Your task to perform on an android device: Is it going to rain this weekend? Image 0: 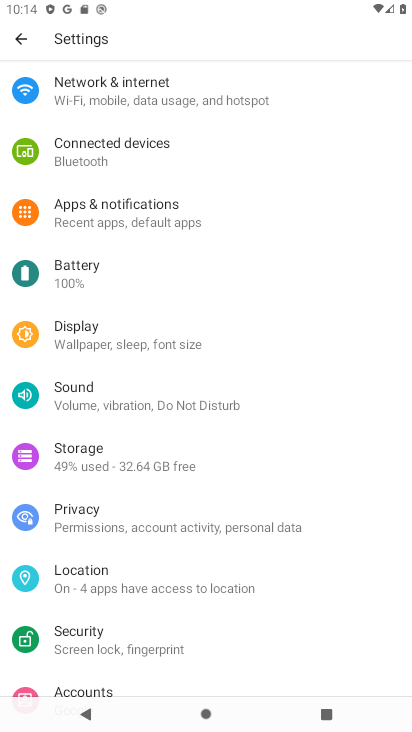
Step 0: press home button
Your task to perform on an android device: Is it going to rain this weekend? Image 1: 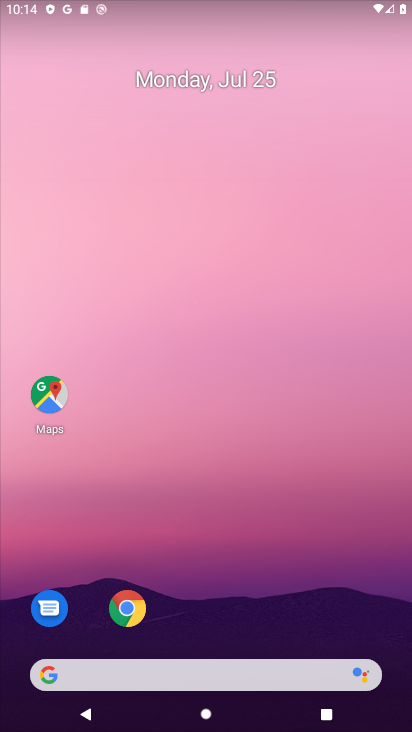
Step 1: drag from (171, 610) to (222, 169)
Your task to perform on an android device: Is it going to rain this weekend? Image 2: 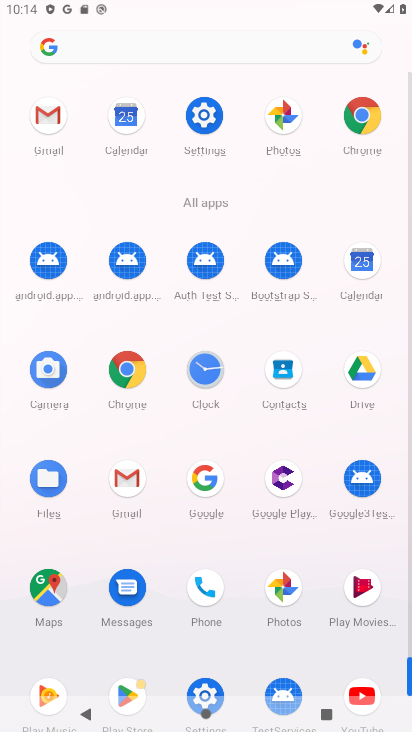
Step 2: click (137, 361)
Your task to perform on an android device: Is it going to rain this weekend? Image 3: 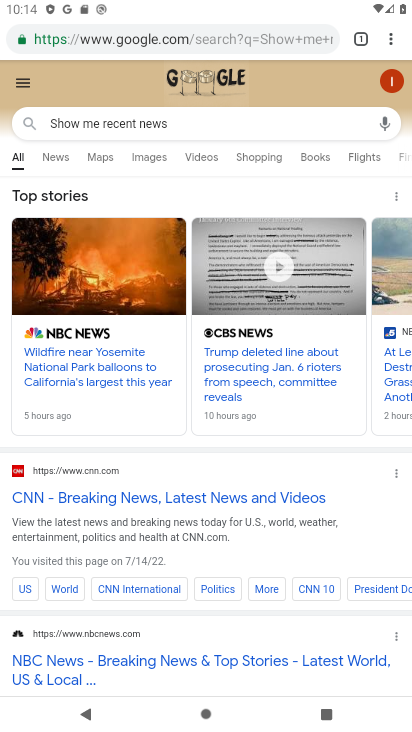
Step 3: click (393, 39)
Your task to perform on an android device: Is it going to rain this weekend? Image 4: 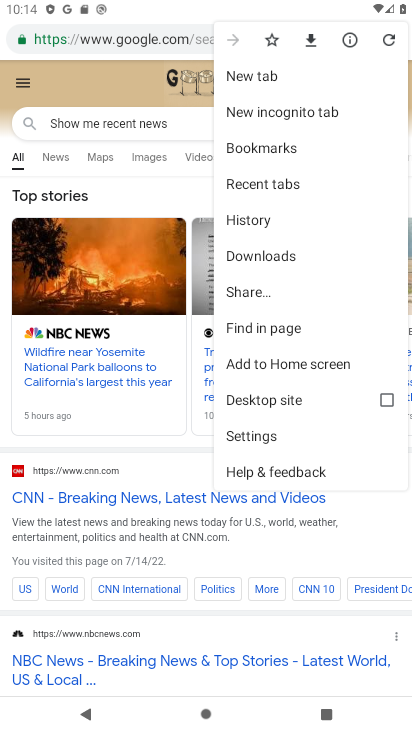
Step 4: click (244, 68)
Your task to perform on an android device: Is it going to rain this weekend? Image 5: 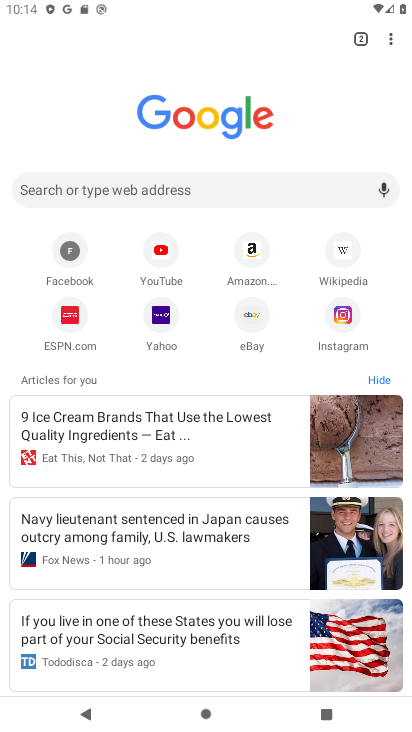
Step 5: click (280, 184)
Your task to perform on an android device: Is it going to rain this weekend? Image 6: 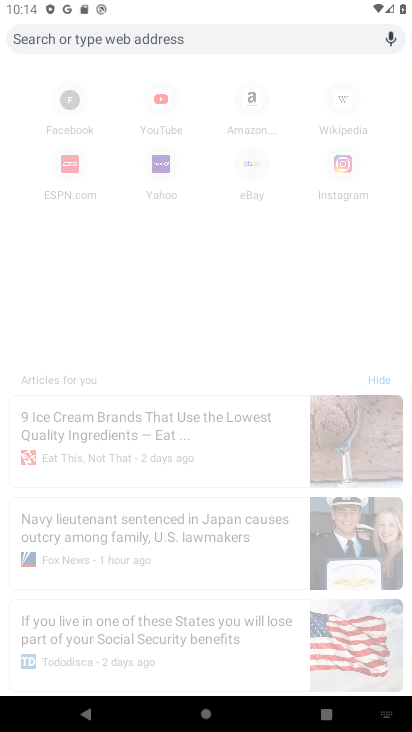
Step 6: type "Is it going to rain this weekend? "
Your task to perform on an android device: Is it going to rain this weekend? Image 7: 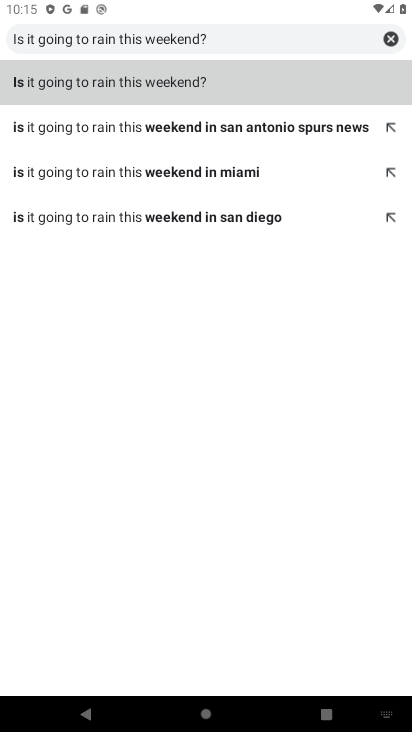
Step 7: click (184, 74)
Your task to perform on an android device: Is it going to rain this weekend? Image 8: 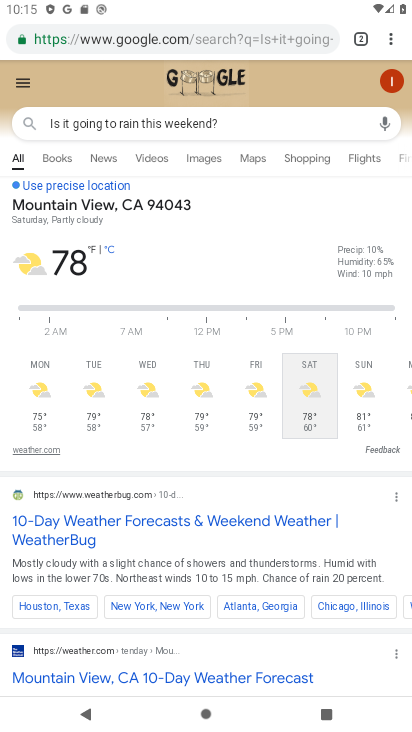
Step 8: task complete